Your task to perform on an android device: toggle sleep mode Image 0: 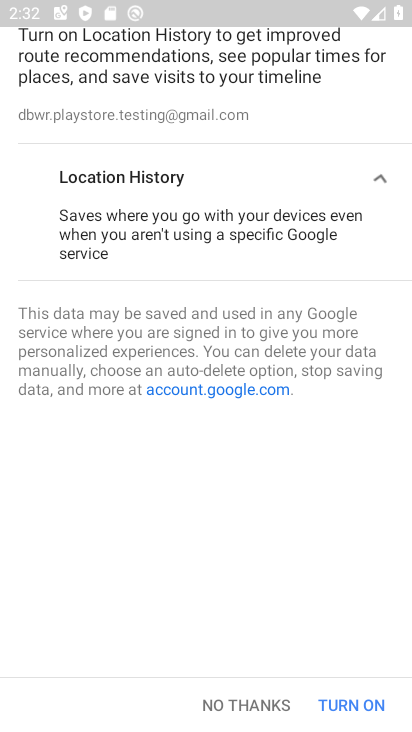
Step 0: click (246, 424)
Your task to perform on an android device: toggle sleep mode Image 1: 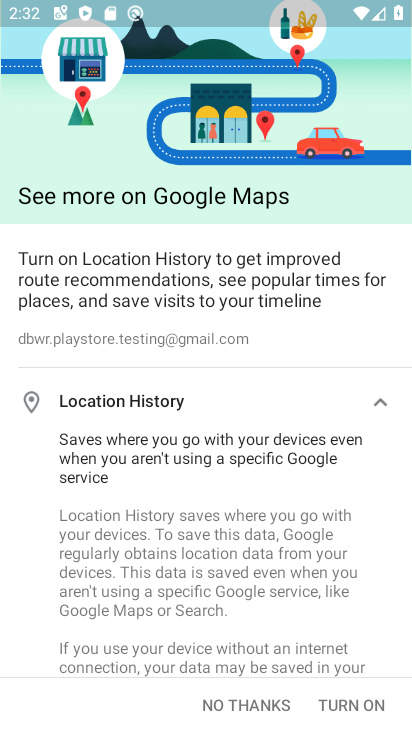
Step 1: press home button
Your task to perform on an android device: toggle sleep mode Image 2: 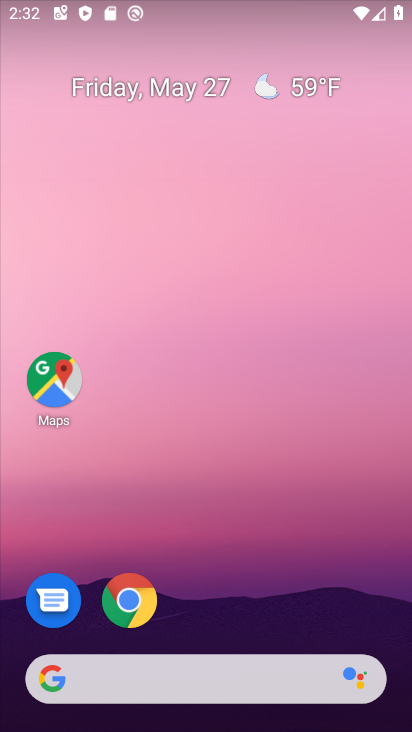
Step 2: drag from (242, 578) to (227, 151)
Your task to perform on an android device: toggle sleep mode Image 3: 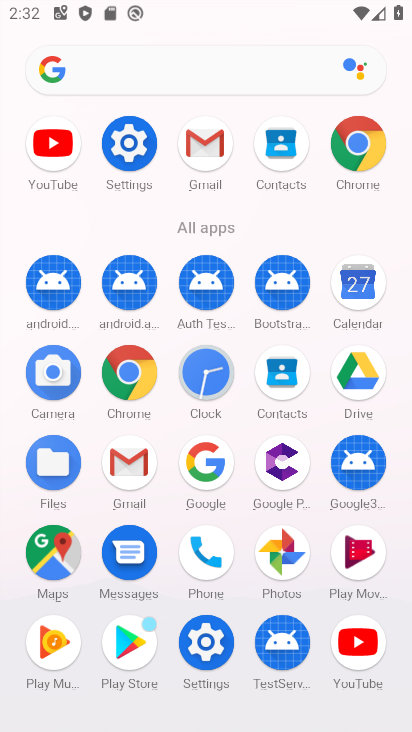
Step 3: click (127, 145)
Your task to perform on an android device: toggle sleep mode Image 4: 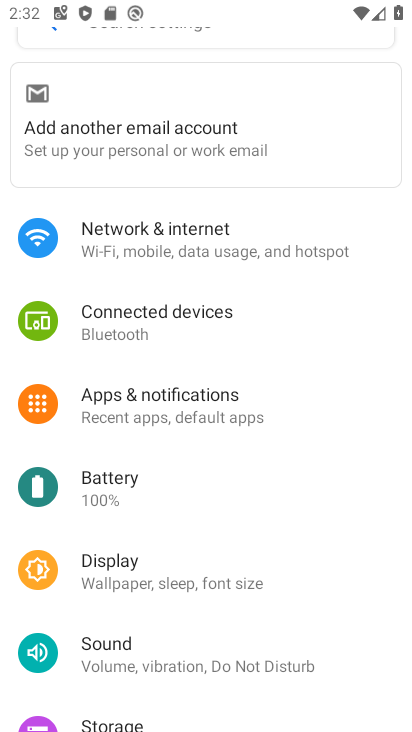
Step 4: drag from (130, 363) to (139, 256)
Your task to perform on an android device: toggle sleep mode Image 5: 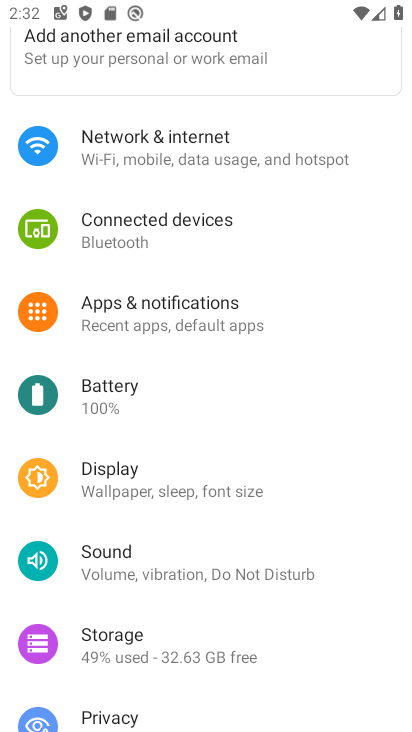
Step 5: drag from (159, 480) to (144, 343)
Your task to perform on an android device: toggle sleep mode Image 6: 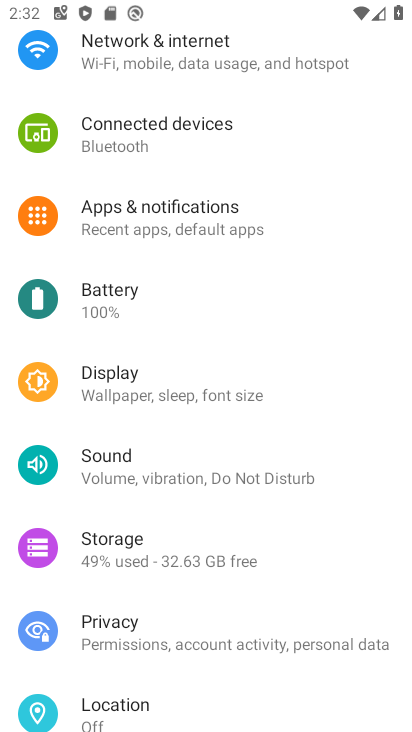
Step 6: drag from (185, 539) to (204, 441)
Your task to perform on an android device: toggle sleep mode Image 7: 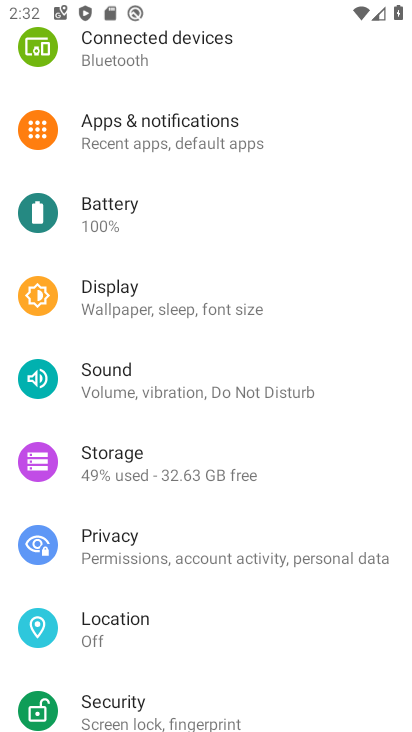
Step 7: click (195, 309)
Your task to perform on an android device: toggle sleep mode Image 8: 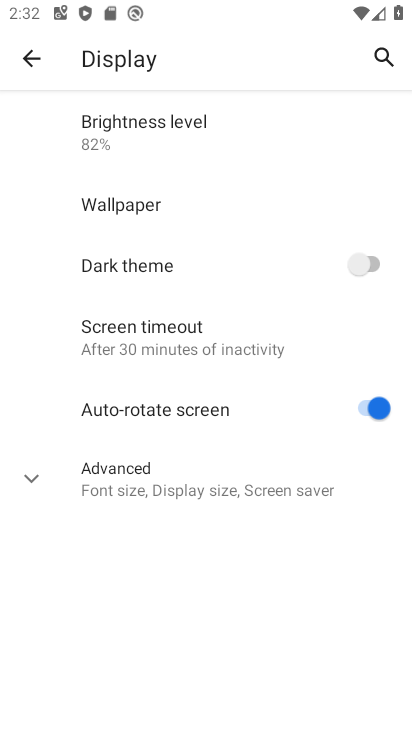
Step 8: click (211, 350)
Your task to perform on an android device: toggle sleep mode Image 9: 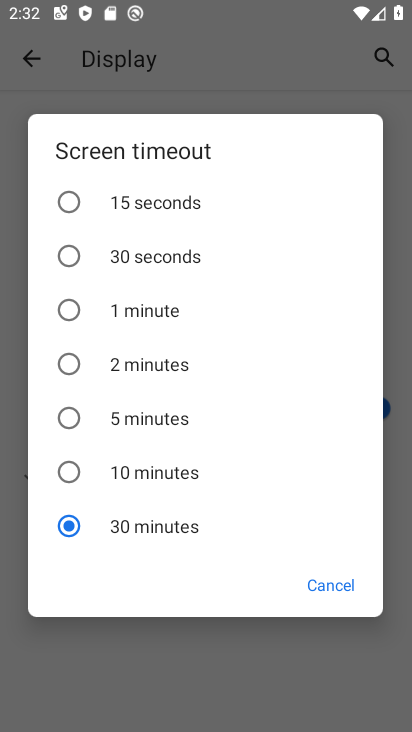
Step 9: click (342, 590)
Your task to perform on an android device: toggle sleep mode Image 10: 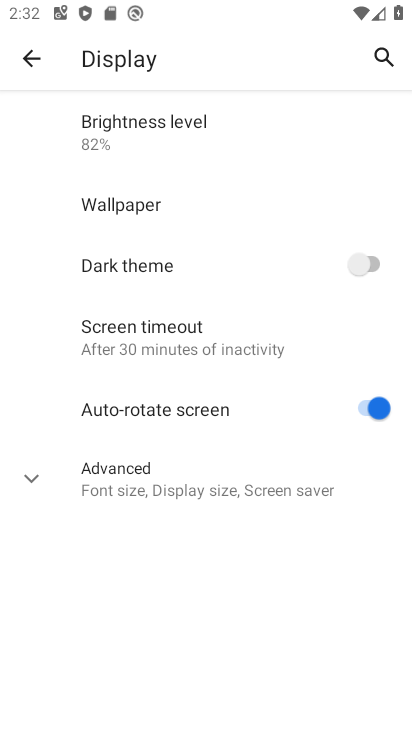
Step 10: click (178, 487)
Your task to perform on an android device: toggle sleep mode Image 11: 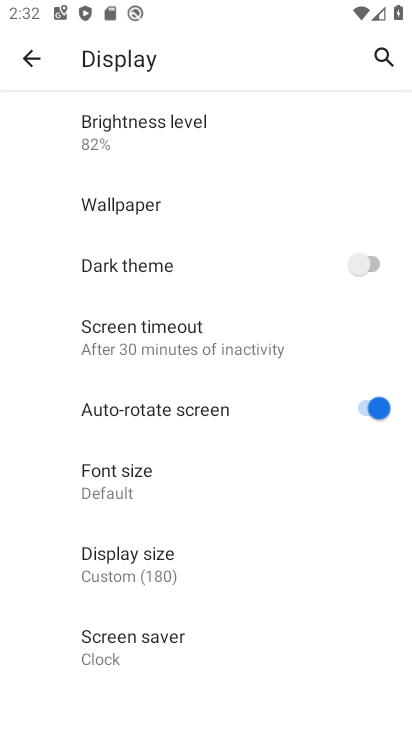
Step 11: task complete